Your task to perform on an android device: turn notification dots on Image 0: 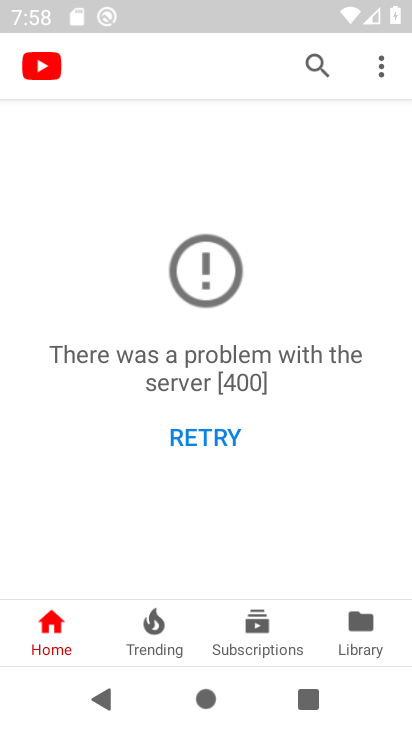
Step 0: press back button
Your task to perform on an android device: turn notification dots on Image 1: 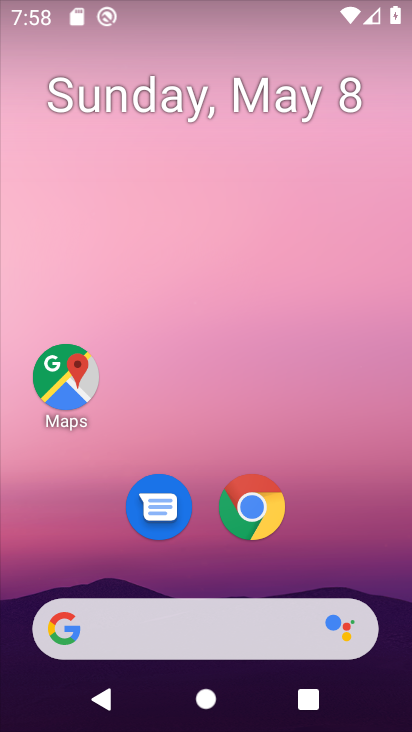
Step 1: drag from (231, 565) to (220, 180)
Your task to perform on an android device: turn notification dots on Image 2: 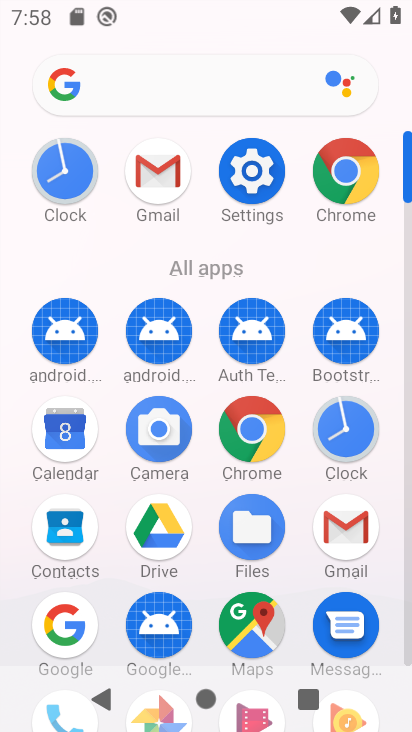
Step 2: click (220, 160)
Your task to perform on an android device: turn notification dots on Image 3: 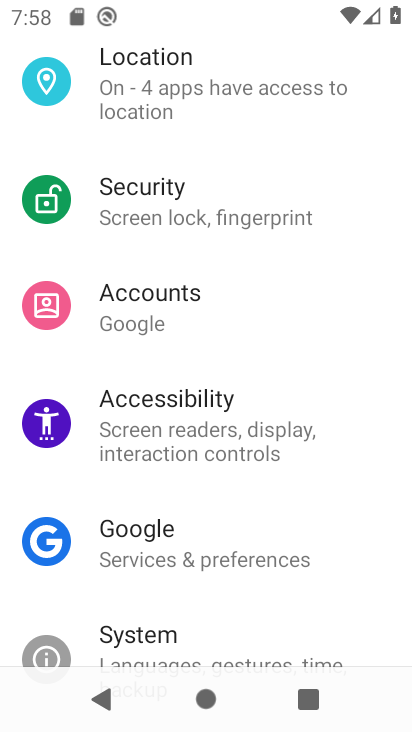
Step 3: drag from (251, 210) to (293, 589)
Your task to perform on an android device: turn notification dots on Image 4: 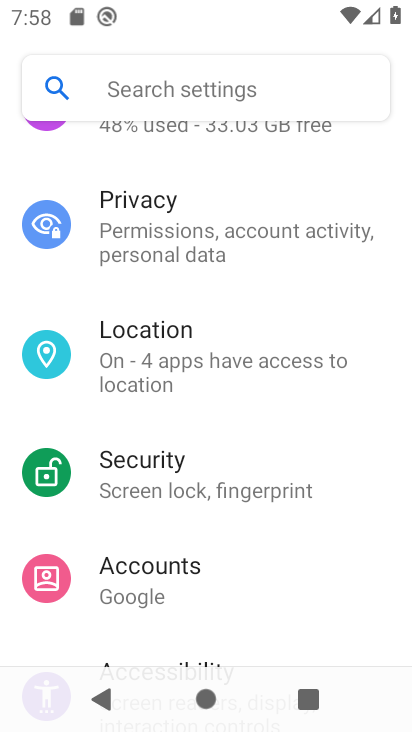
Step 4: drag from (256, 246) to (215, 568)
Your task to perform on an android device: turn notification dots on Image 5: 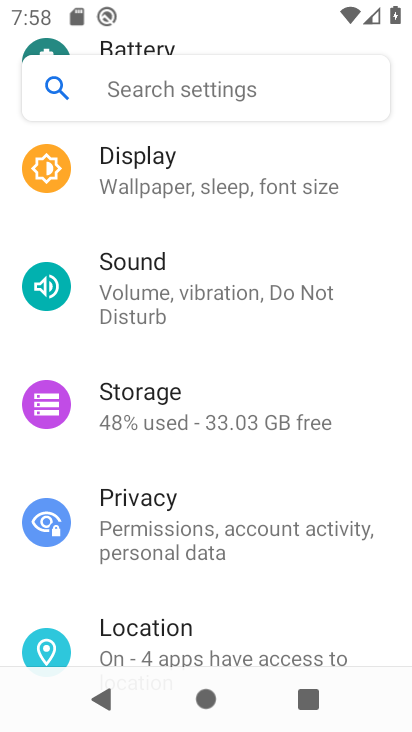
Step 5: drag from (171, 401) to (149, 594)
Your task to perform on an android device: turn notification dots on Image 6: 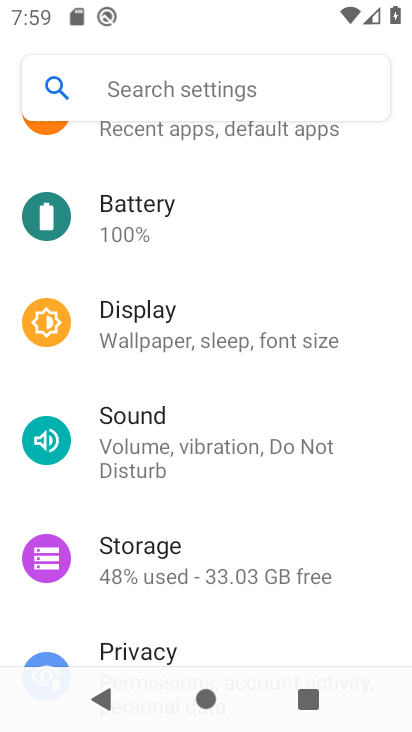
Step 6: drag from (189, 186) to (193, 486)
Your task to perform on an android device: turn notification dots on Image 7: 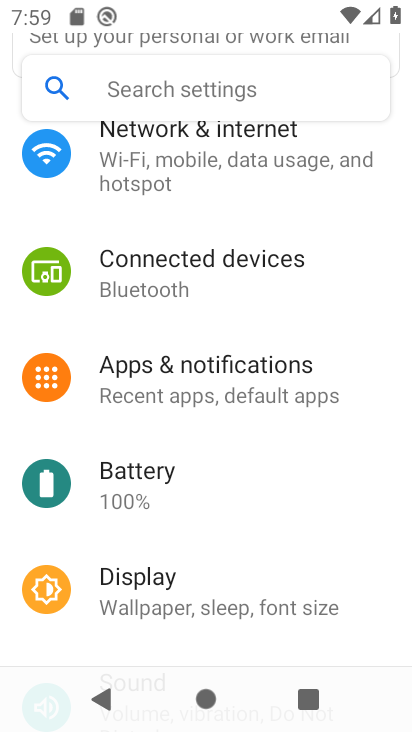
Step 7: click (181, 398)
Your task to perform on an android device: turn notification dots on Image 8: 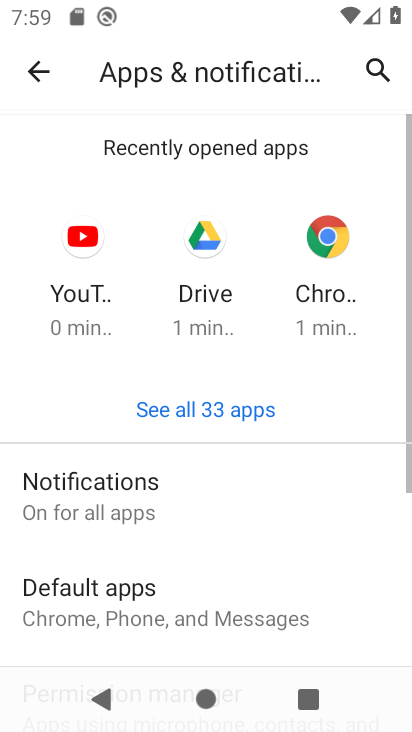
Step 8: click (104, 505)
Your task to perform on an android device: turn notification dots on Image 9: 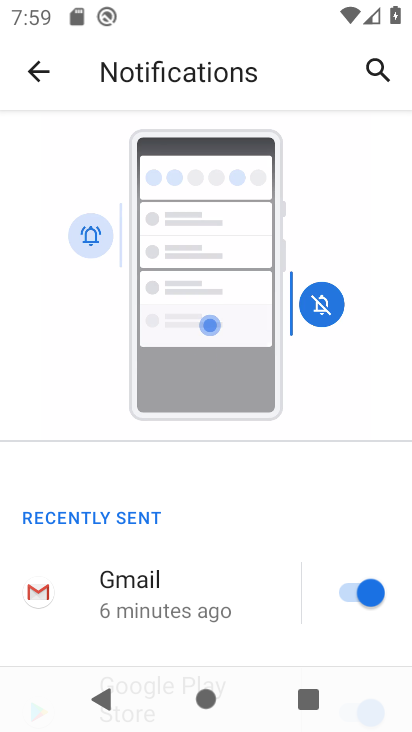
Step 9: drag from (246, 560) to (251, 193)
Your task to perform on an android device: turn notification dots on Image 10: 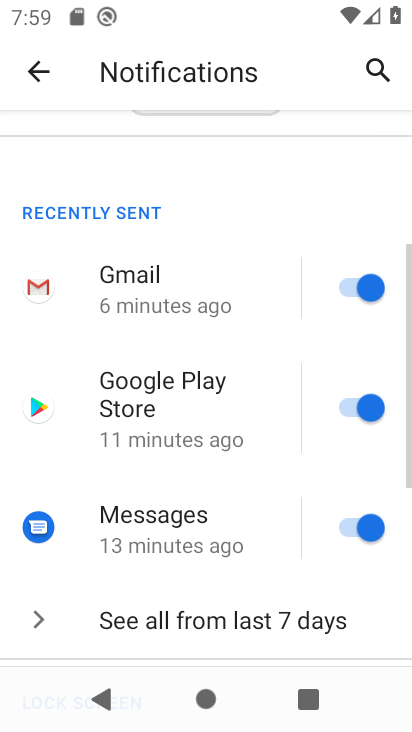
Step 10: drag from (234, 616) to (239, 318)
Your task to perform on an android device: turn notification dots on Image 11: 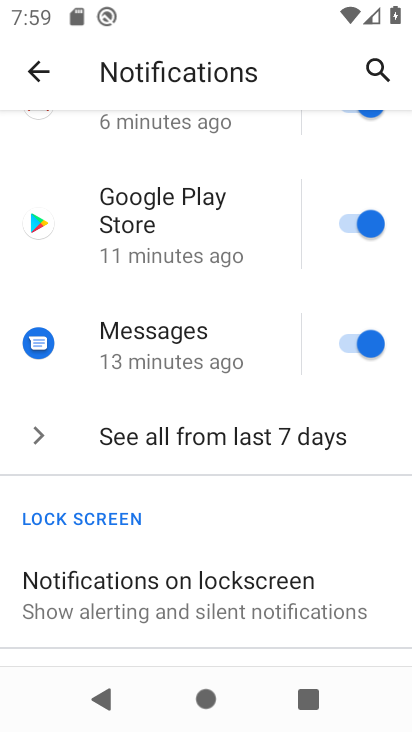
Step 11: drag from (226, 572) to (222, 208)
Your task to perform on an android device: turn notification dots on Image 12: 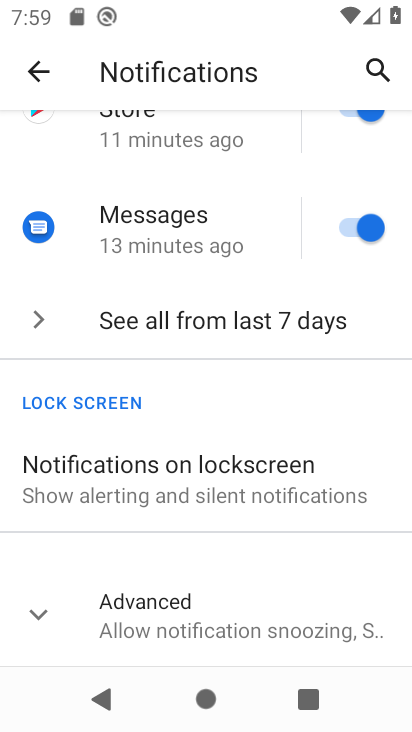
Step 12: click (207, 594)
Your task to perform on an android device: turn notification dots on Image 13: 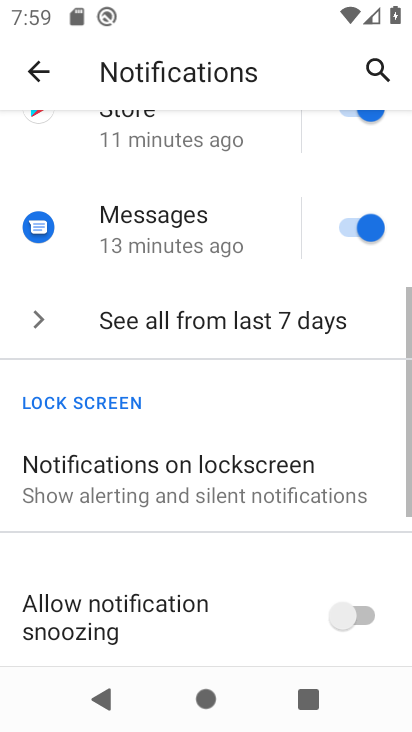
Step 13: task complete